Your task to perform on an android device: star an email in the gmail app Image 0: 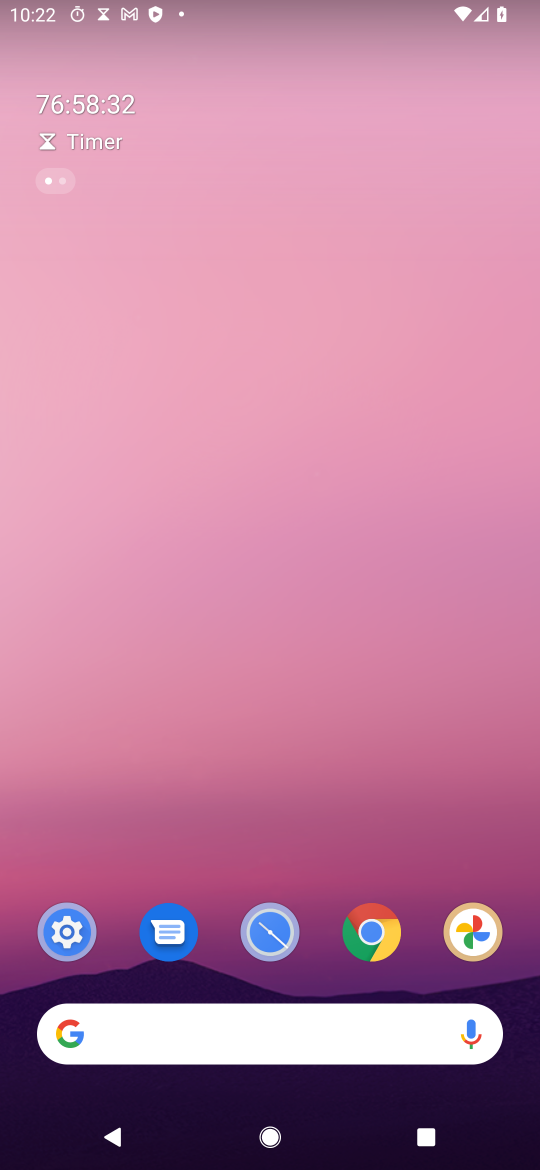
Step 0: drag from (395, 841) to (223, 60)
Your task to perform on an android device: star an email in the gmail app Image 1: 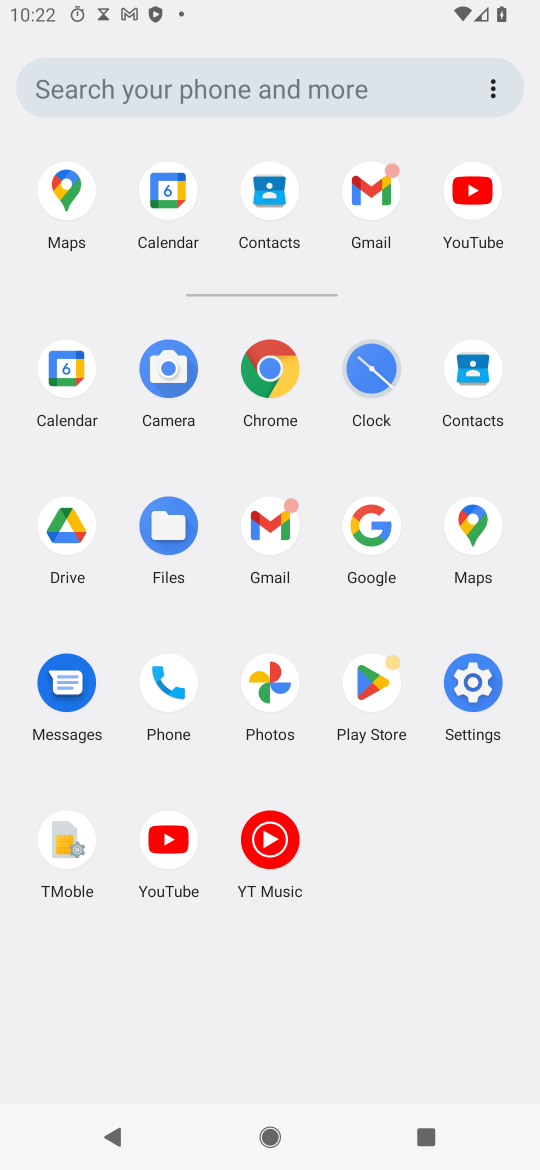
Step 1: click (382, 196)
Your task to perform on an android device: star an email in the gmail app Image 2: 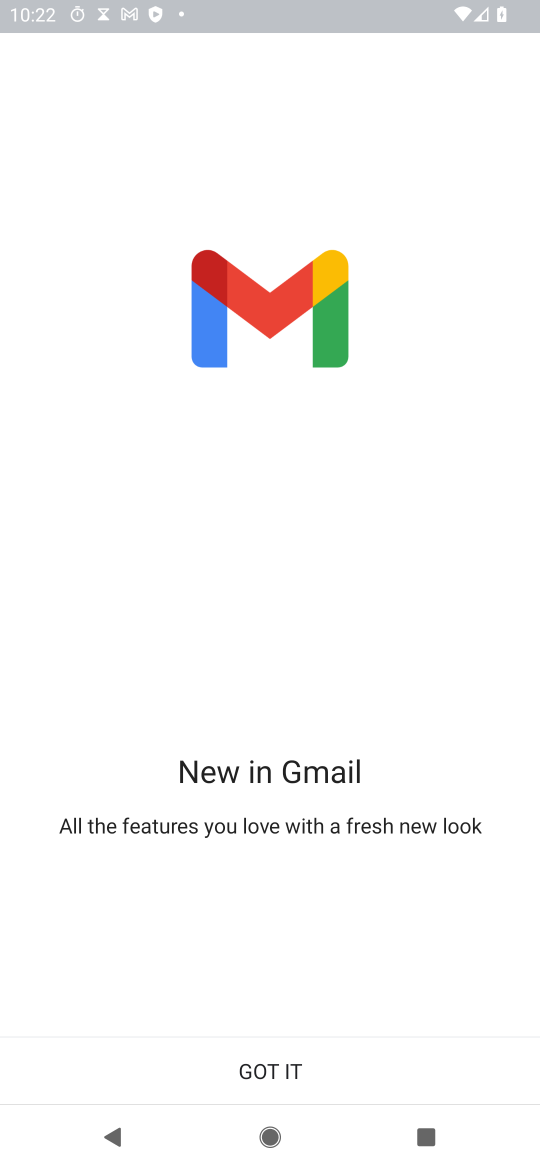
Step 2: click (301, 1083)
Your task to perform on an android device: star an email in the gmail app Image 3: 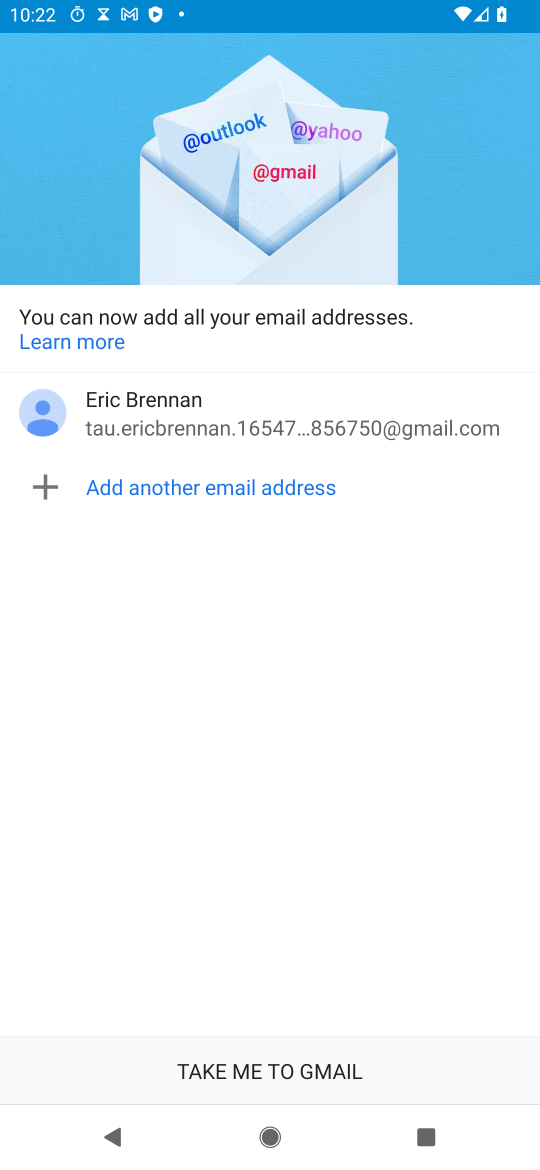
Step 3: click (272, 1066)
Your task to perform on an android device: star an email in the gmail app Image 4: 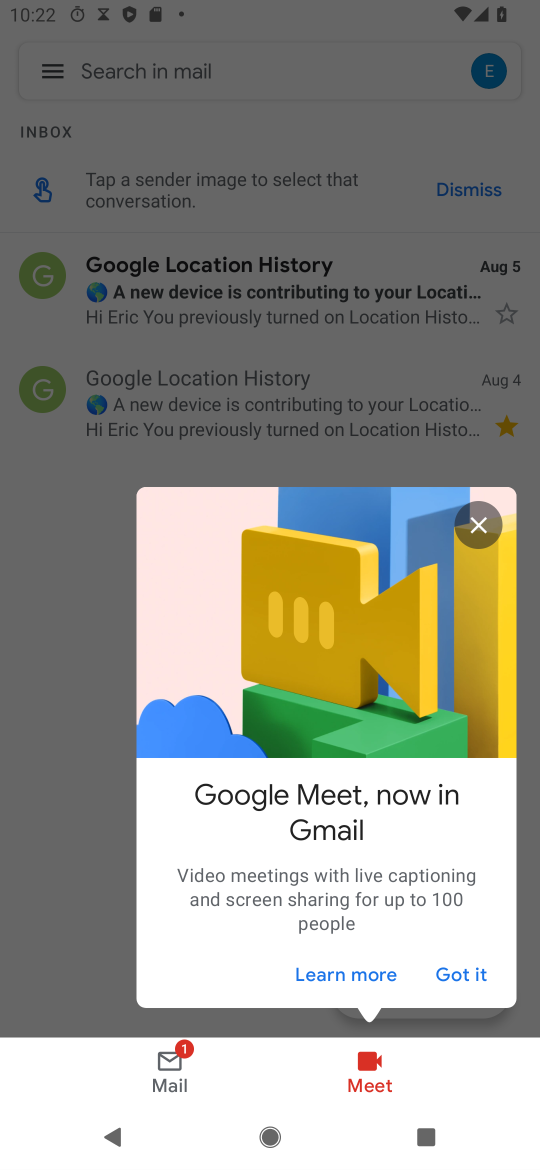
Step 4: click (474, 981)
Your task to perform on an android device: star an email in the gmail app Image 5: 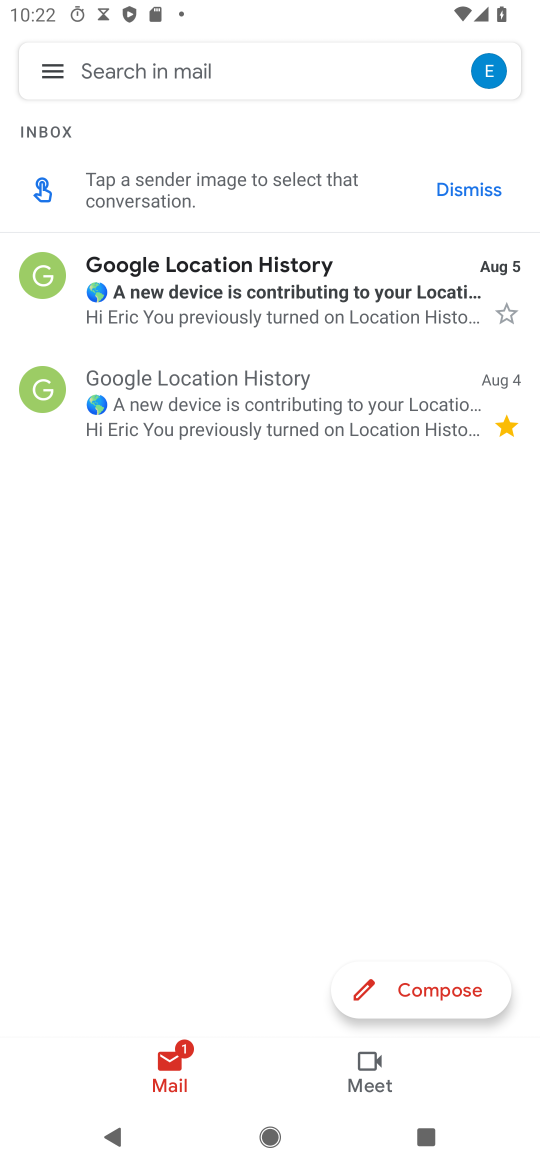
Step 5: click (506, 326)
Your task to perform on an android device: star an email in the gmail app Image 6: 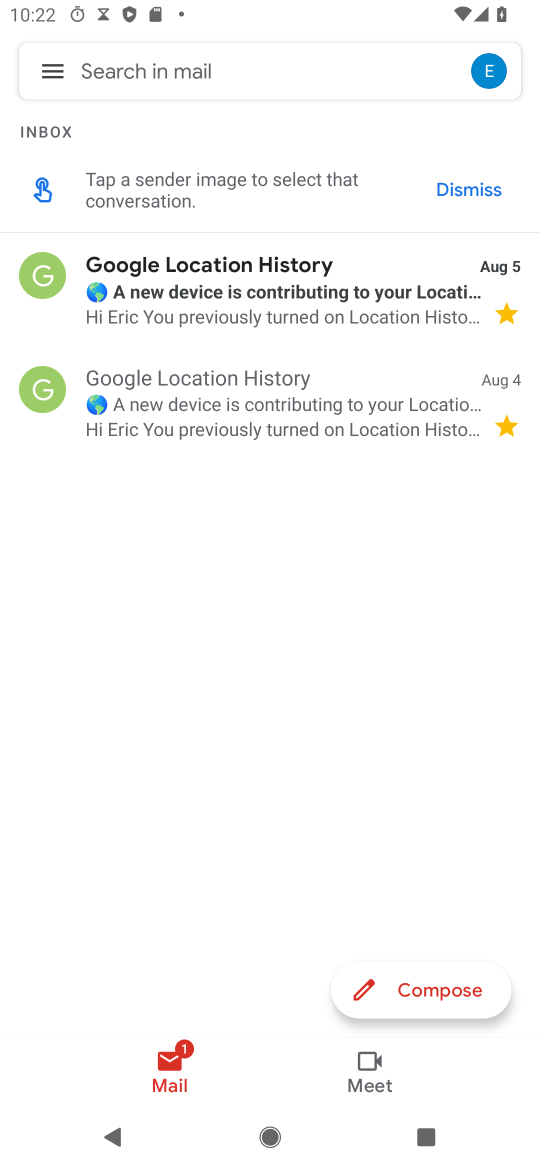
Step 6: task complete